Your task to perform on an android device: open sync settings in chrome Image 0: 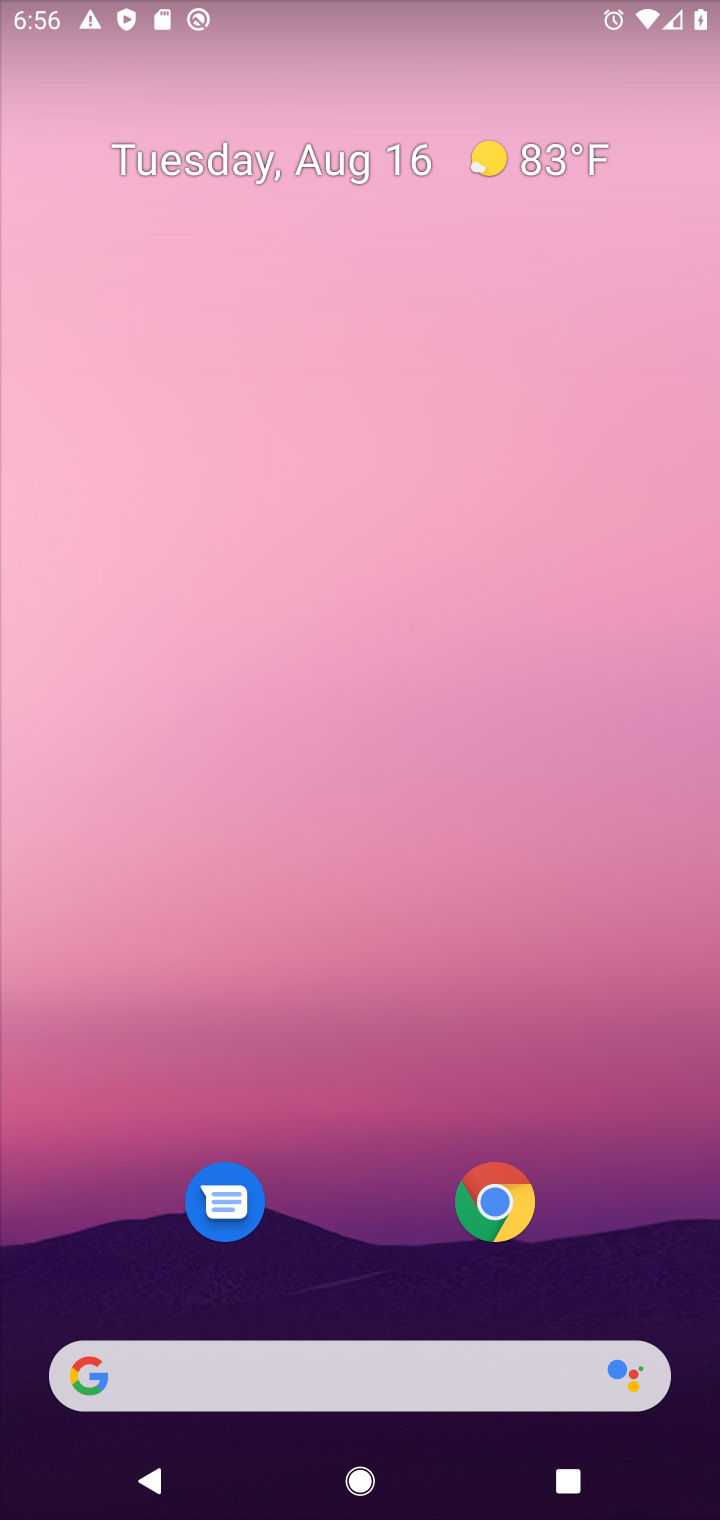
Step 0: drag from (668, 1331) to (413, 96)
Your task to perform on an android device: open sync settings in chrome Image 1: 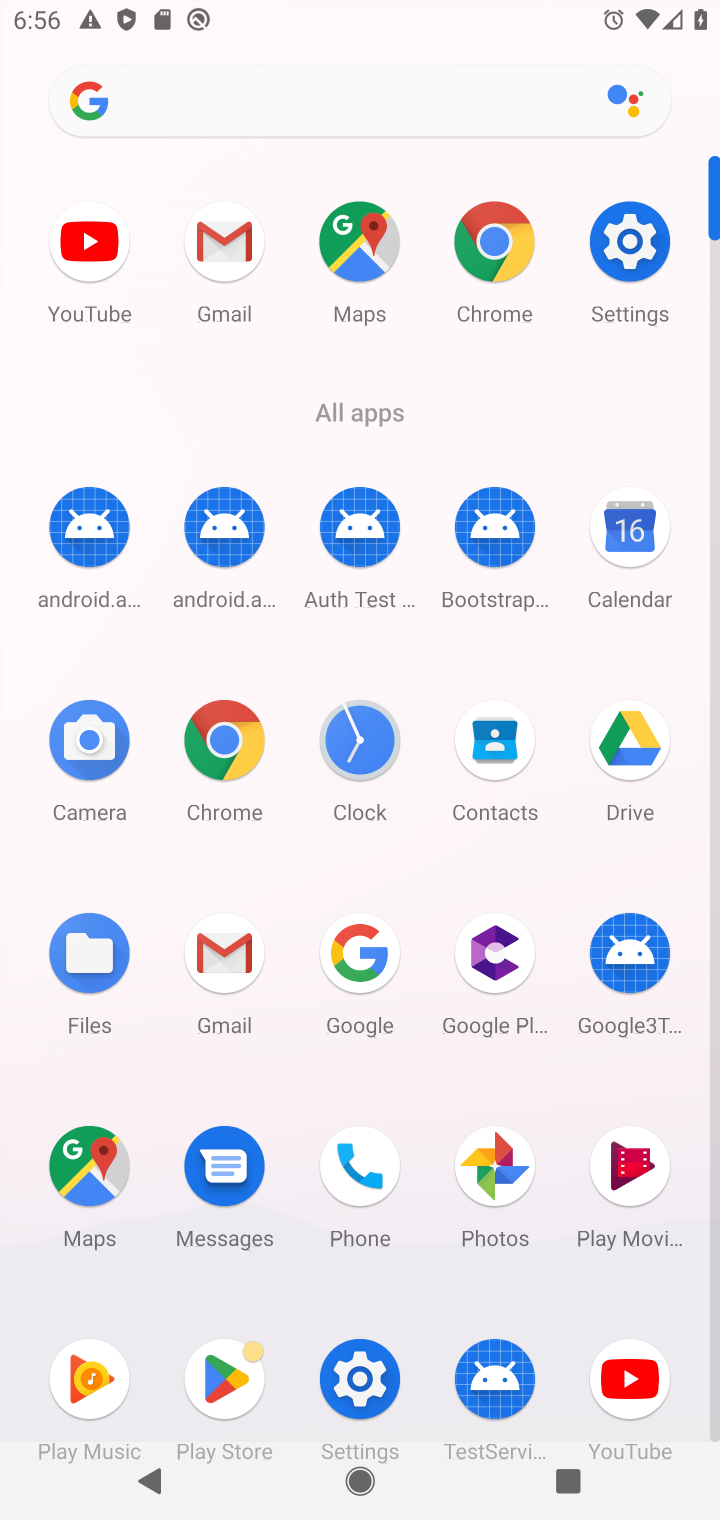
Step 1: click (225, 748)
Your task to perform on an android device: open sync settings in chrome Image 2: 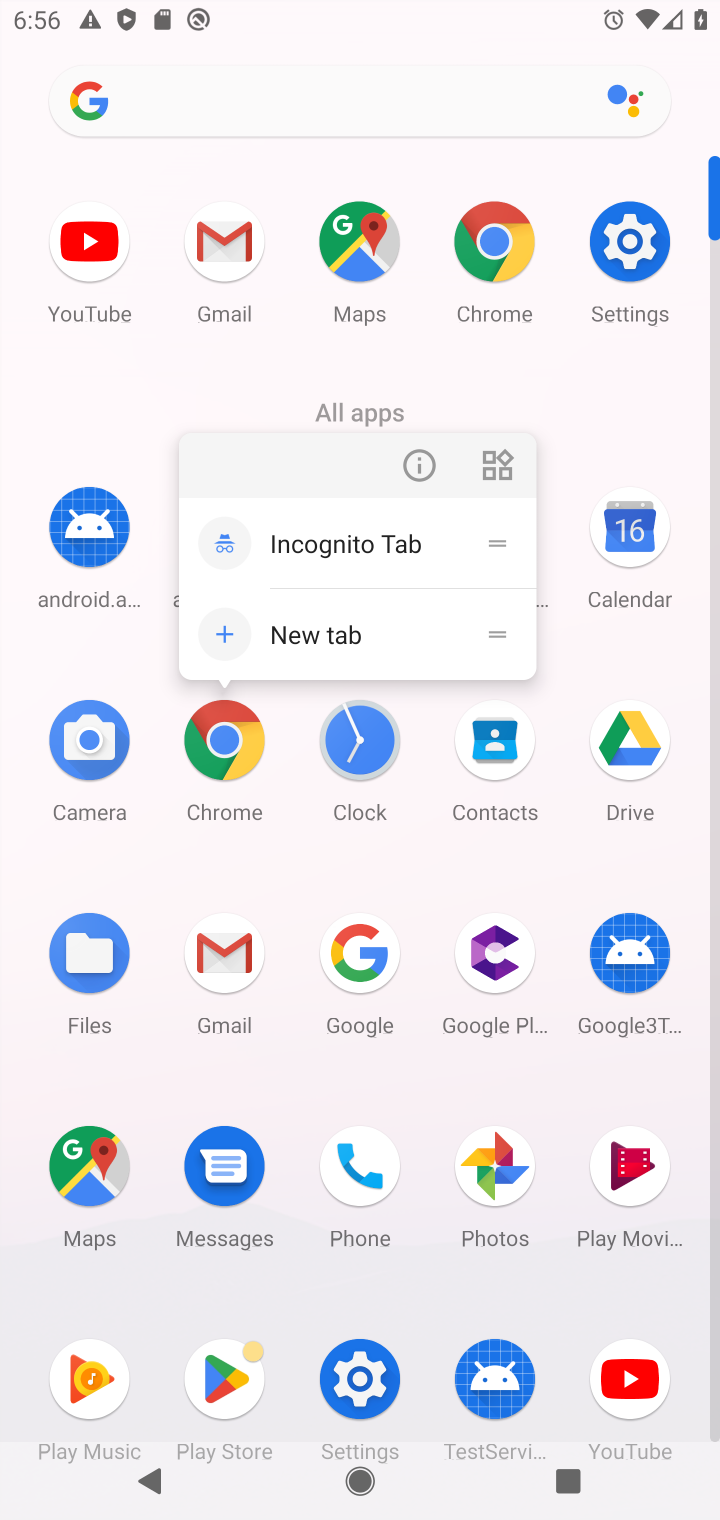
Step 2: click (225, 748)
Your task to perform on an android device: open sync settings in chrome Image 3: 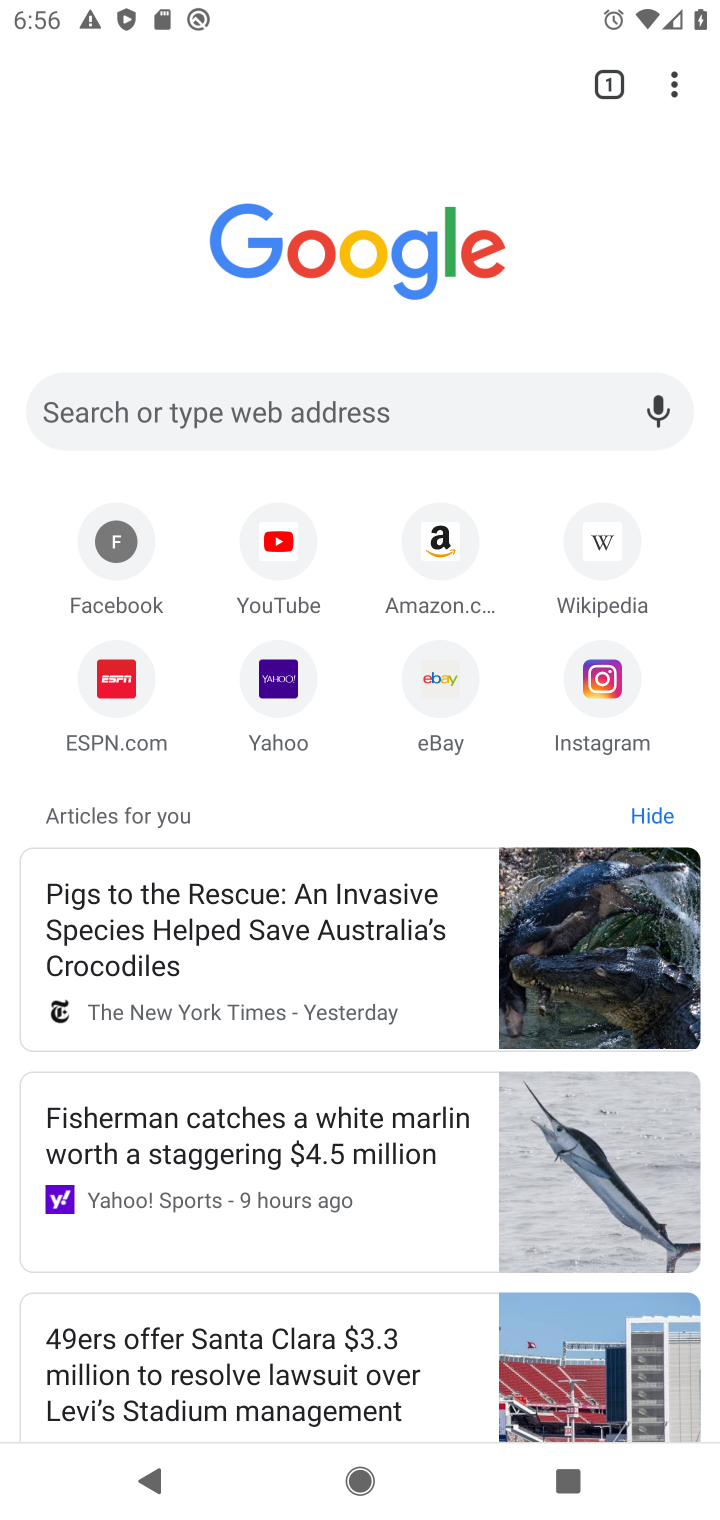
Step 3: click (675, 75)
Your task to perform on an android device: open sync settings in chrome Image 4: 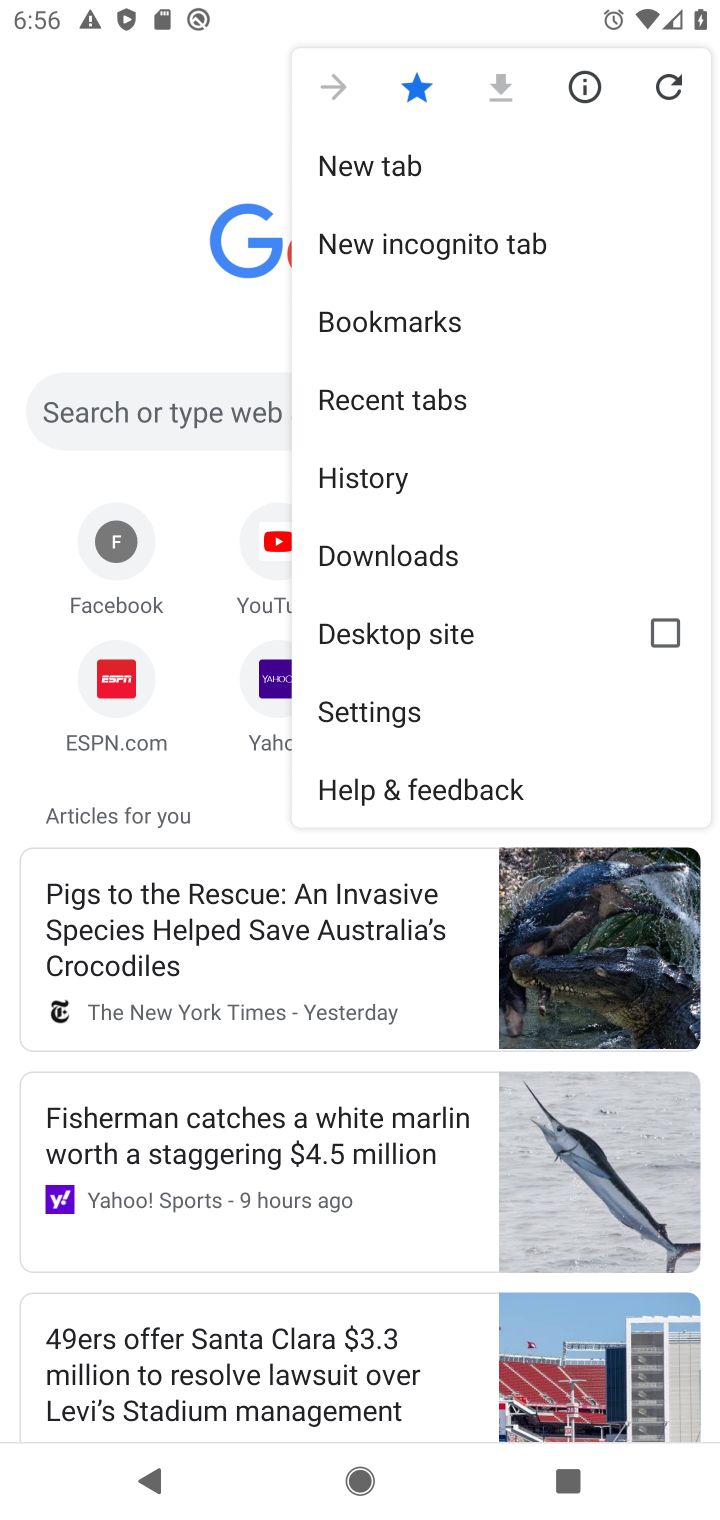
Step 4: click (455, 701)
Your task to perform on an android device: open sync settings in chrome Image 5: 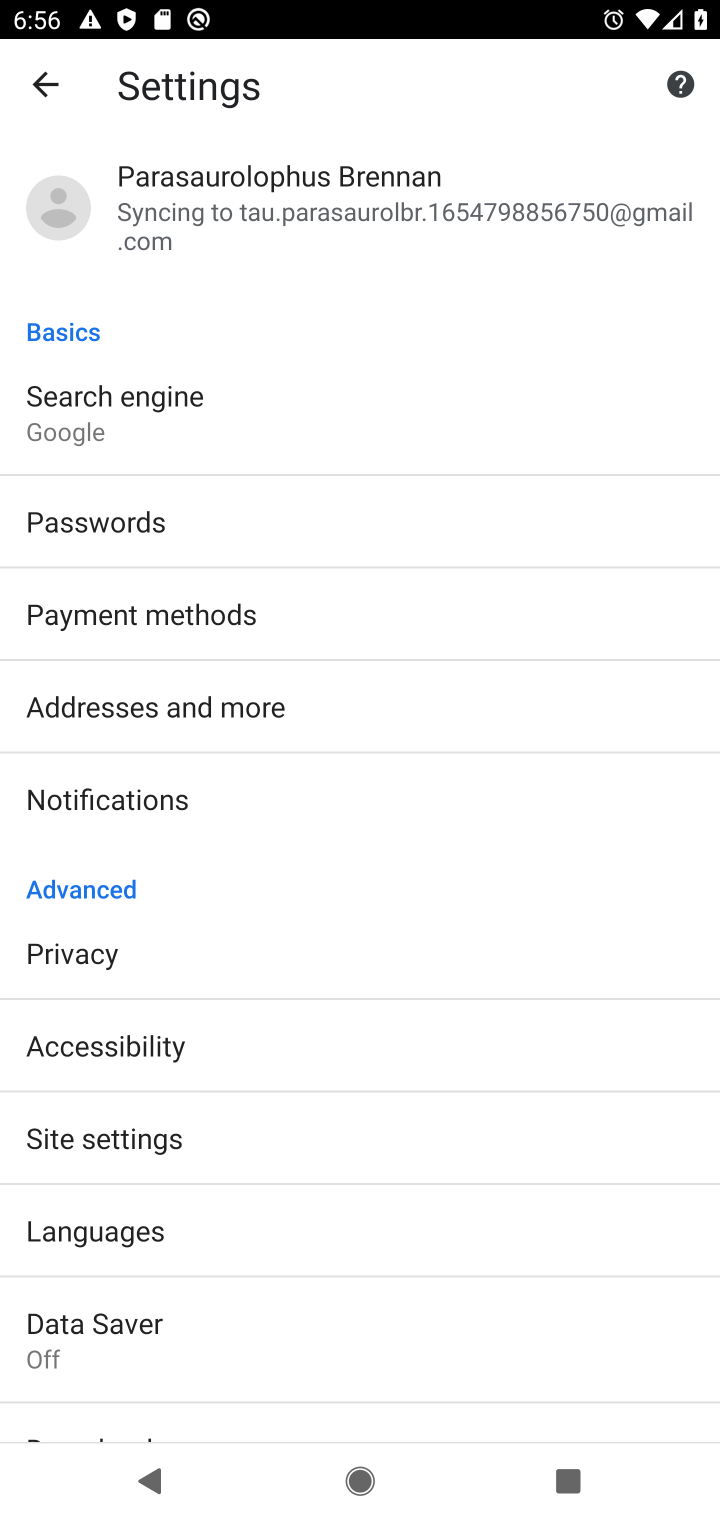
Step 5: drag from (199, 1276) to (181, 276)
Your task to perform on an android device: open sync settings in chrome Image 6: 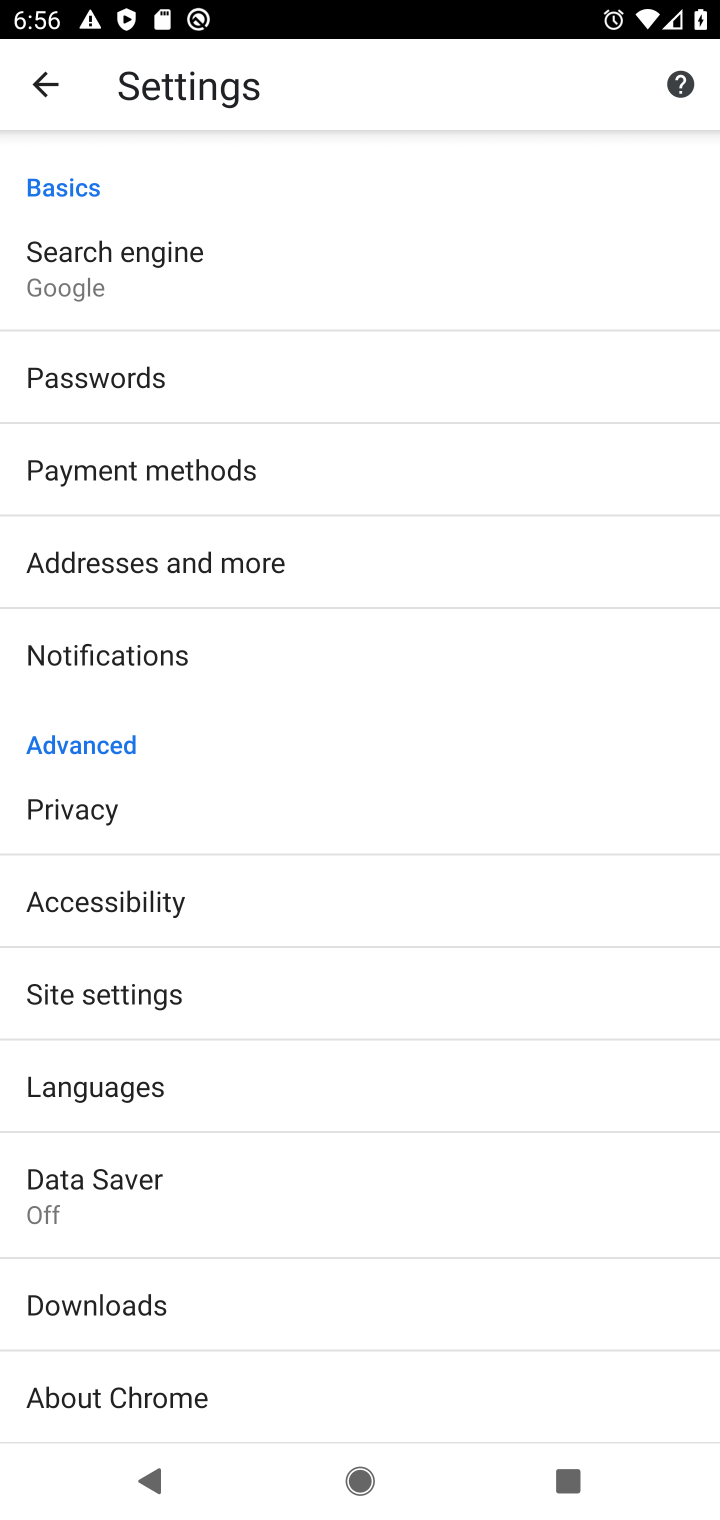
Step 6: click (184, 994)
Your task to perform on an android device: open sync settings in chrome Image 7: 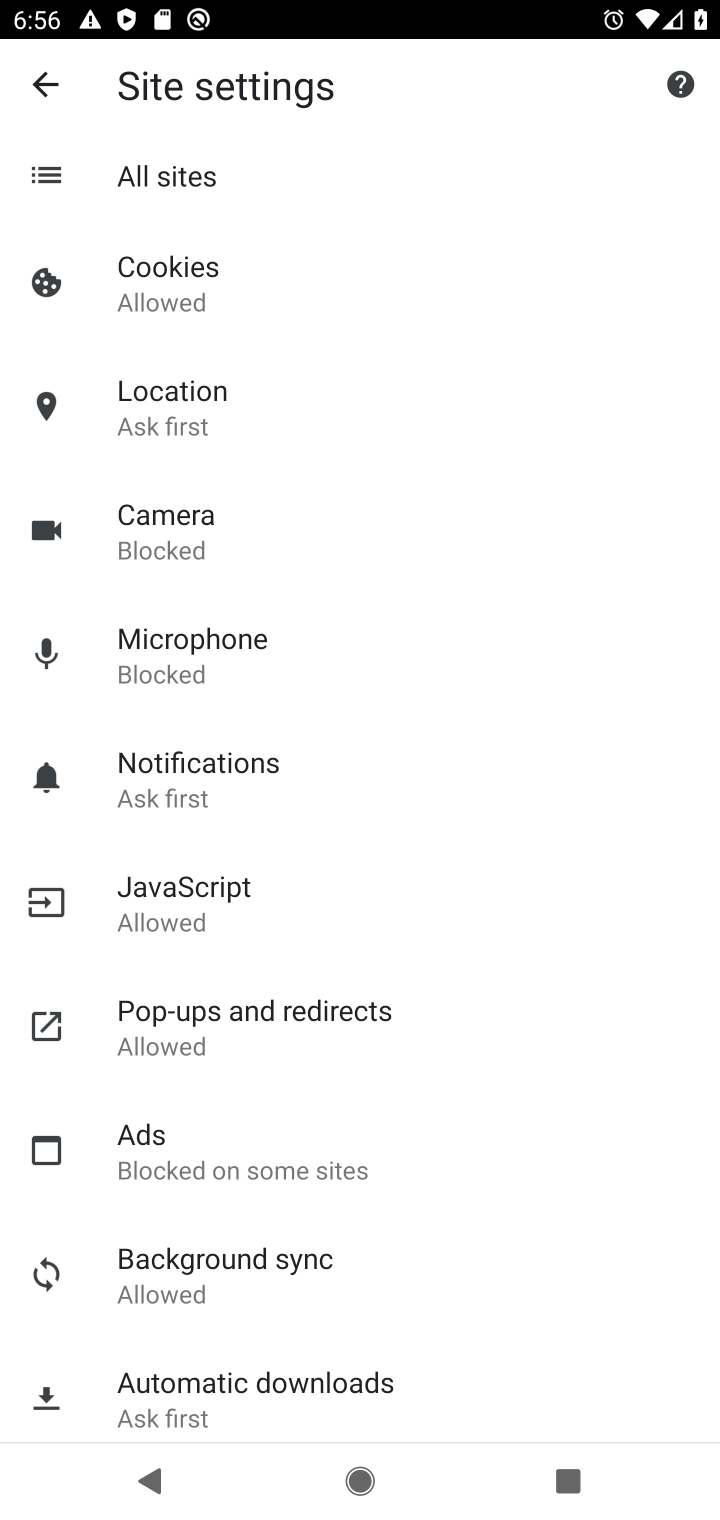
Step 7: click (272, 1263)
Your task to perform on an android device: open sync settings in chrome Image 8: 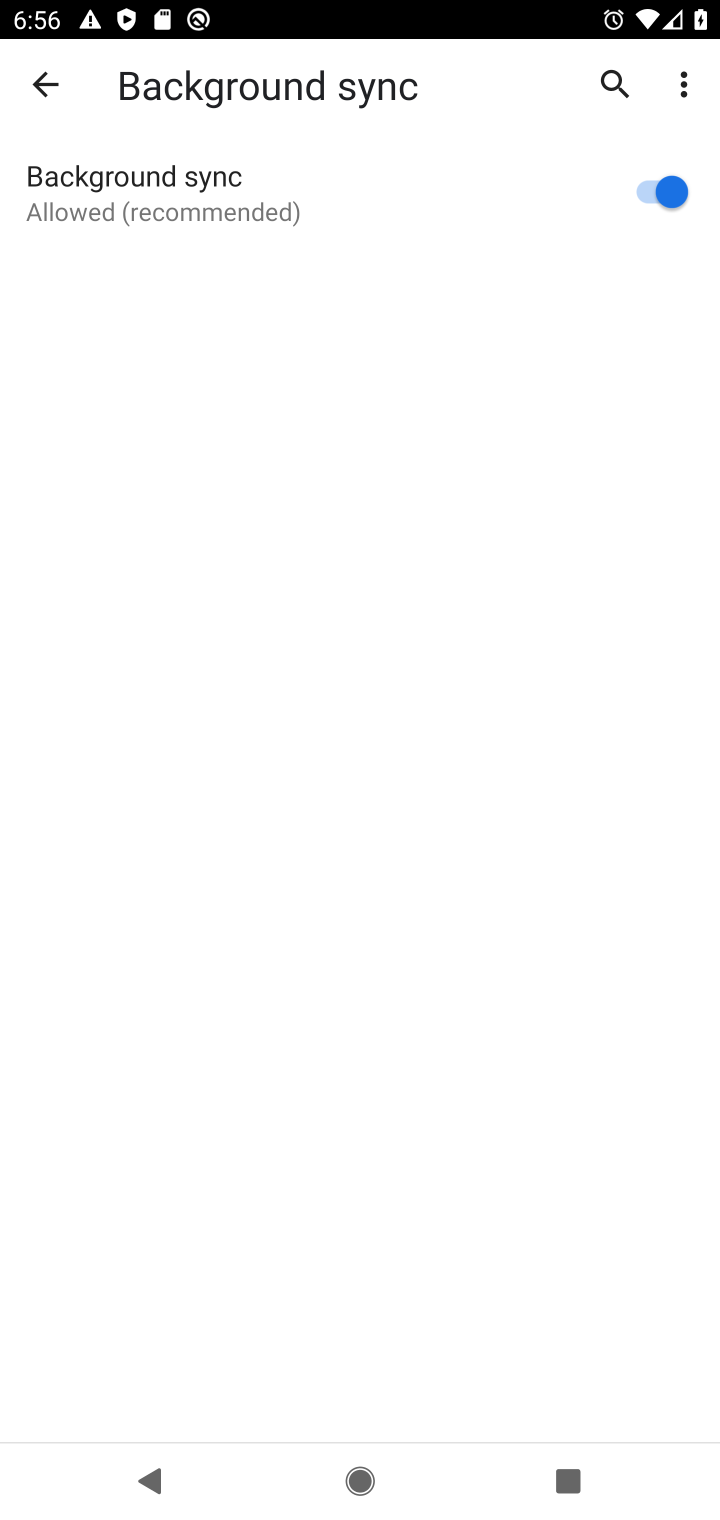
Step 8: task complete